Your task to perform on an android device: turn on data saver in the chrome app Image 0: 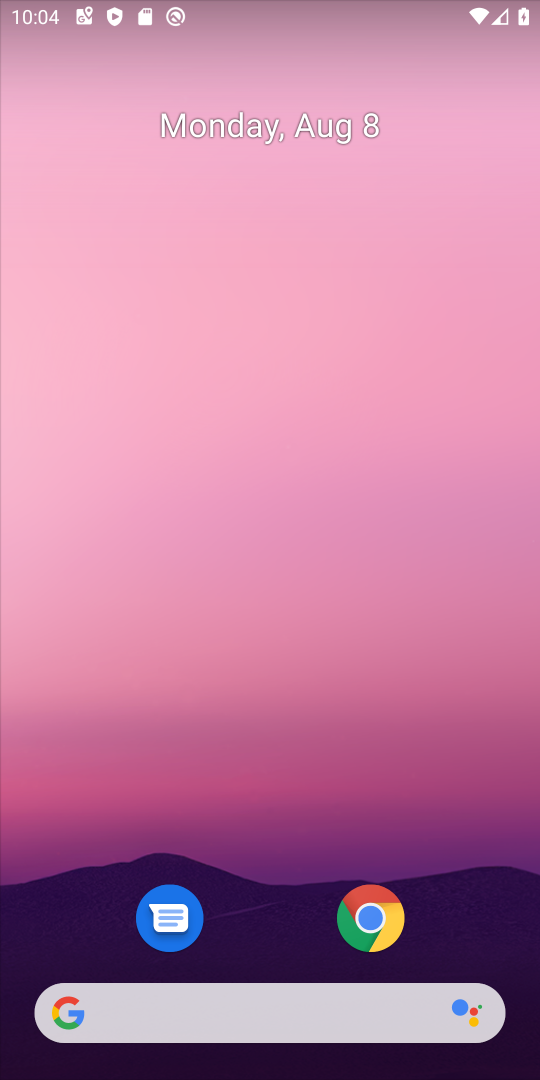
Step 0: click (349, 916)
Your task to perform on an android device: turn on data saver in the chrome app Image 1: 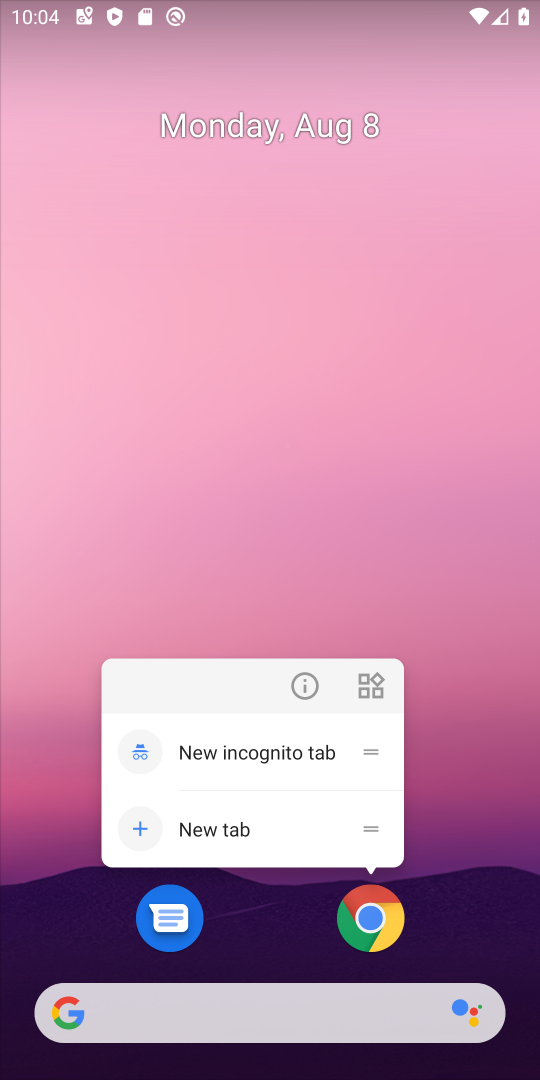
Step 1: click (384, 920)
Your task to perform on an android device: turn on data saver in the chrome app Image 2: 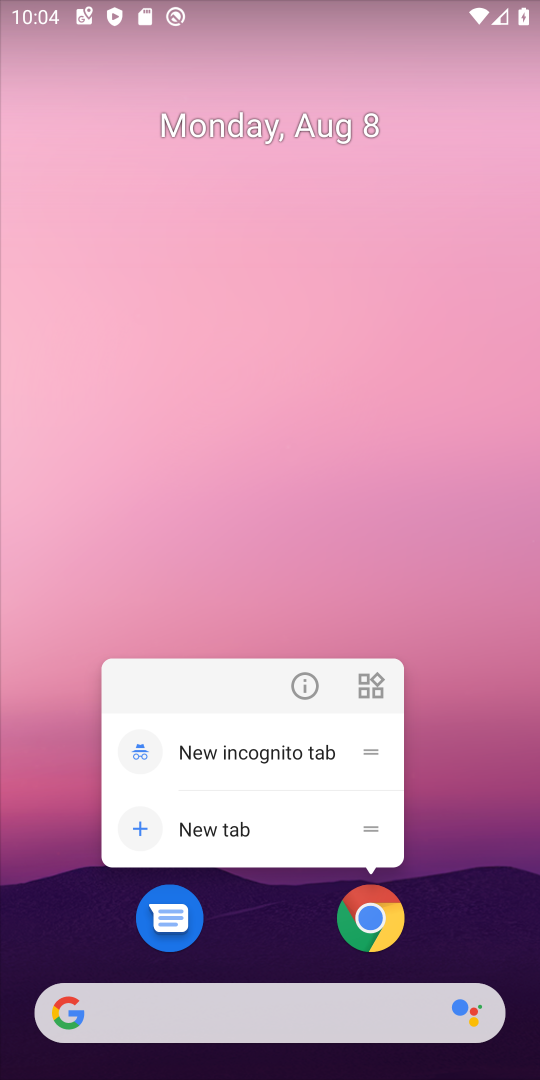
Step 2: click (379, 911)
Your task to perform on an android device: turn on data saver in the chrome app Image 3: 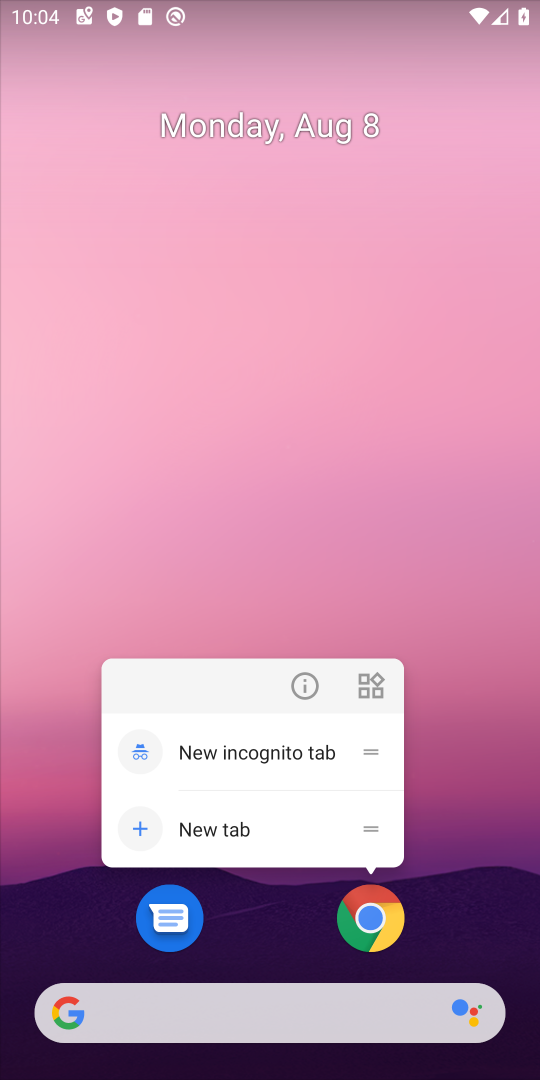
Step 3: click (369, 924)
Your task to perform on an android device: turn on data saver in the chrome app Image 4: 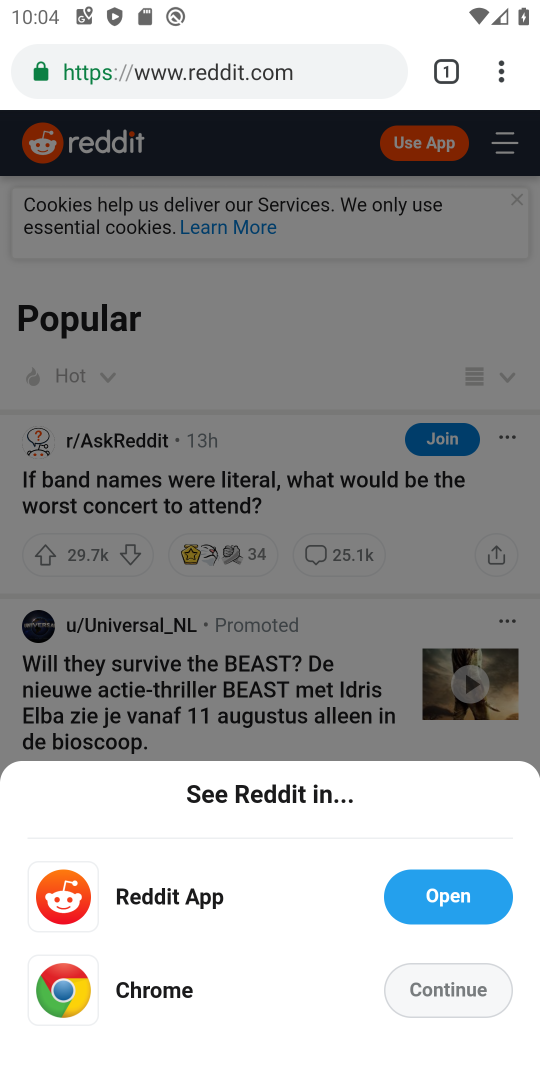
Step 4: click (438, 995)
Your task to perform on an android device: turn on data saver in the chrome app Image 5: 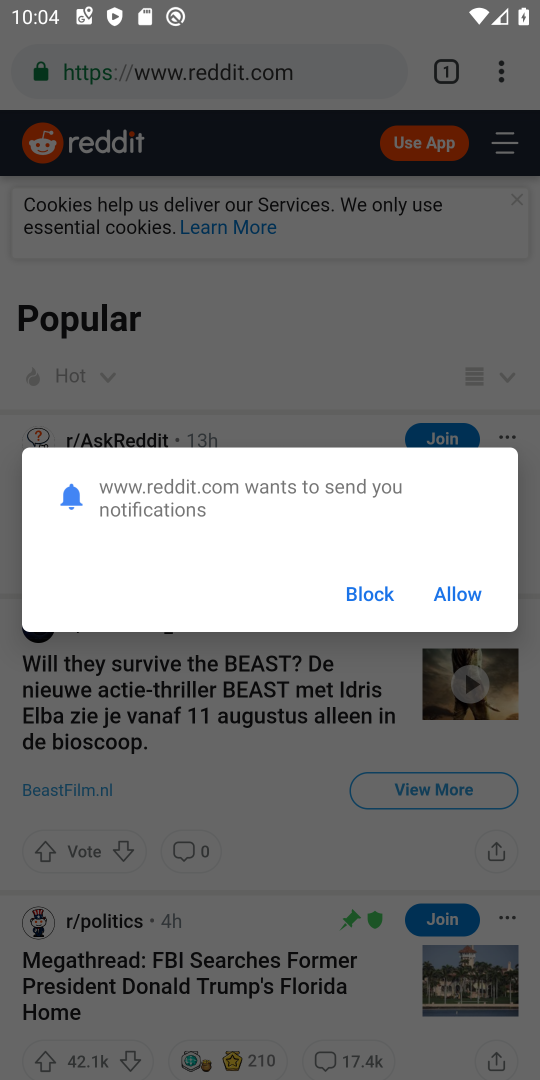
Step 5: click (448, 621)
Your task to perform on an android device: turn on data saver in the chrome app Image 6: 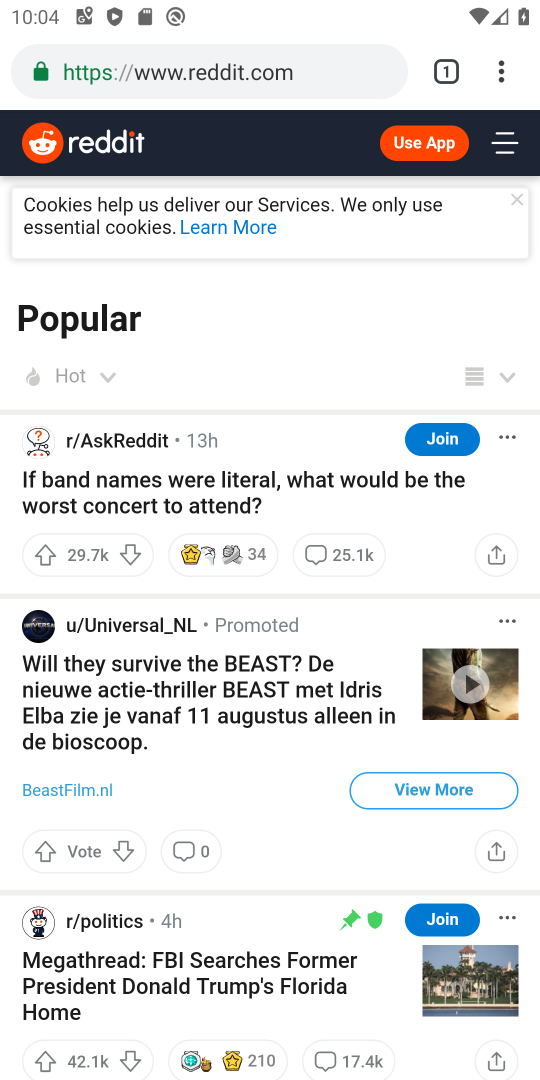
Step 6: click (504, 88)
Your task to perform on an android device: turn on data saver in the chrome app Image 7: 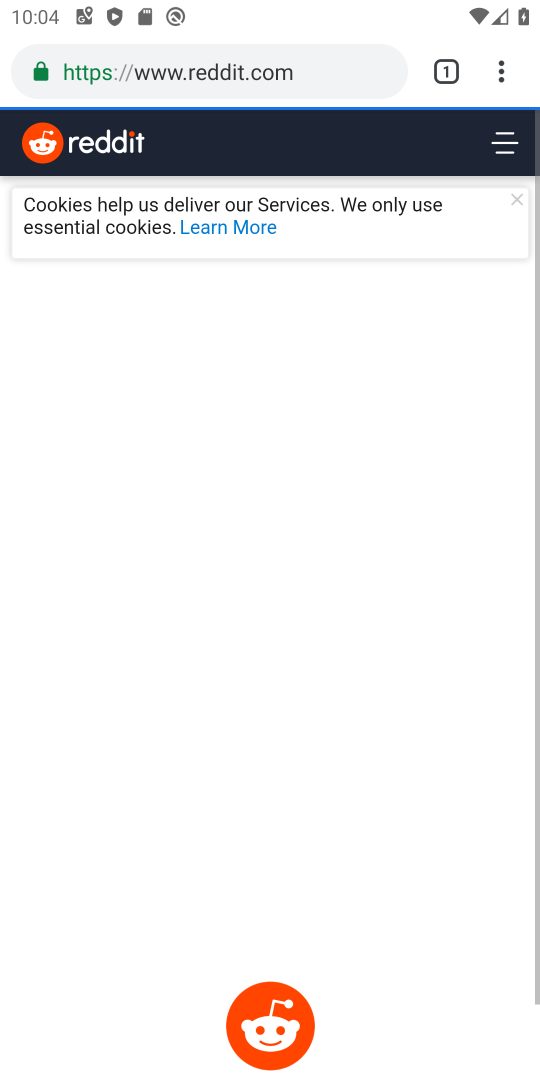
Step 7: click (504, 59)
Your task to perform on an android device: turn on data saver in the chrome app Image 8: 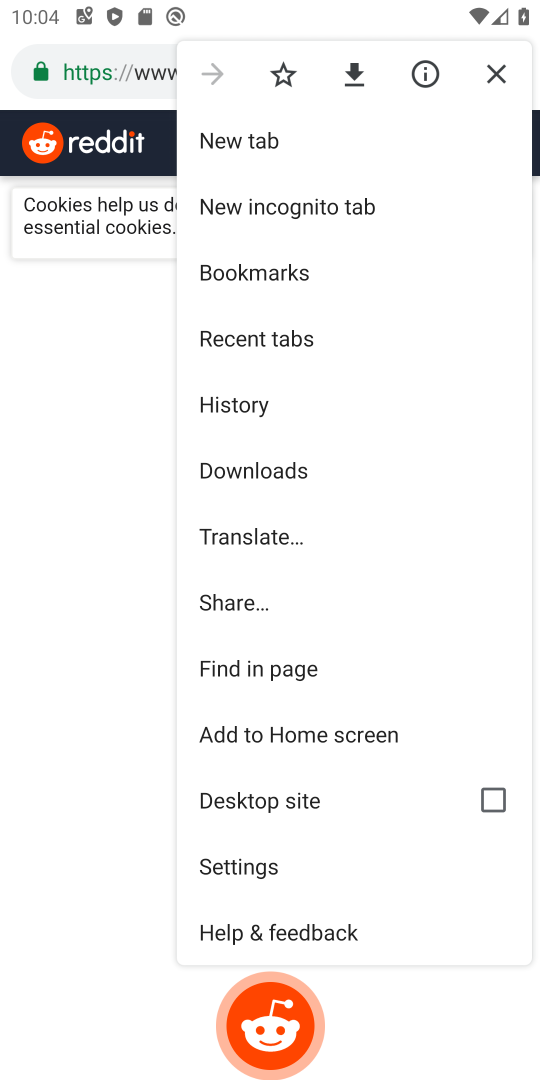
Step 8: click (290, 855)
Your task to perform on an android device: turn on data saver in the chrome app Image 9: 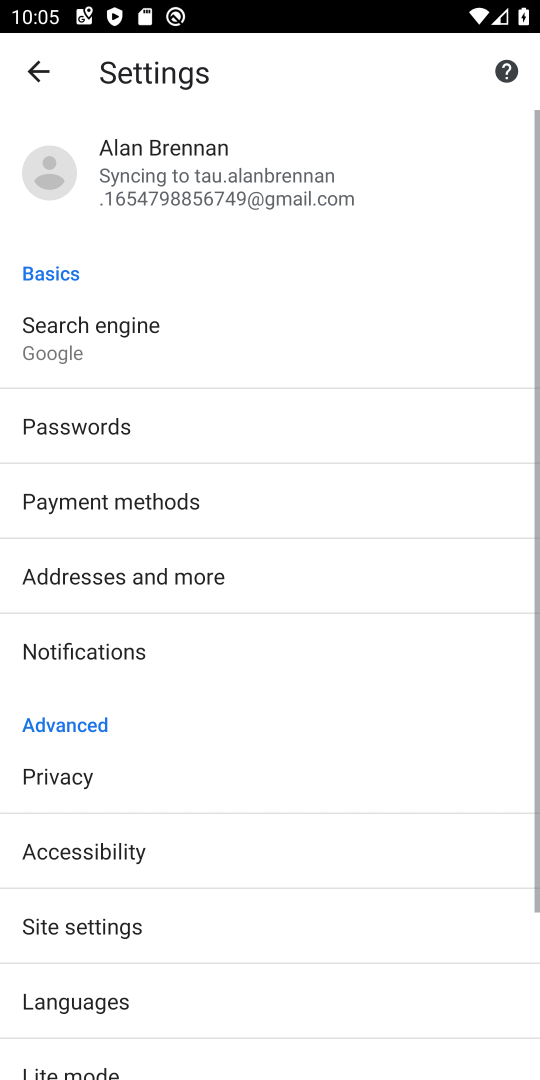
Step 9: drag from (244, 879) to (223, 222)
Your task to perform on an android device: turn on data saver in the chrome app Image 10: 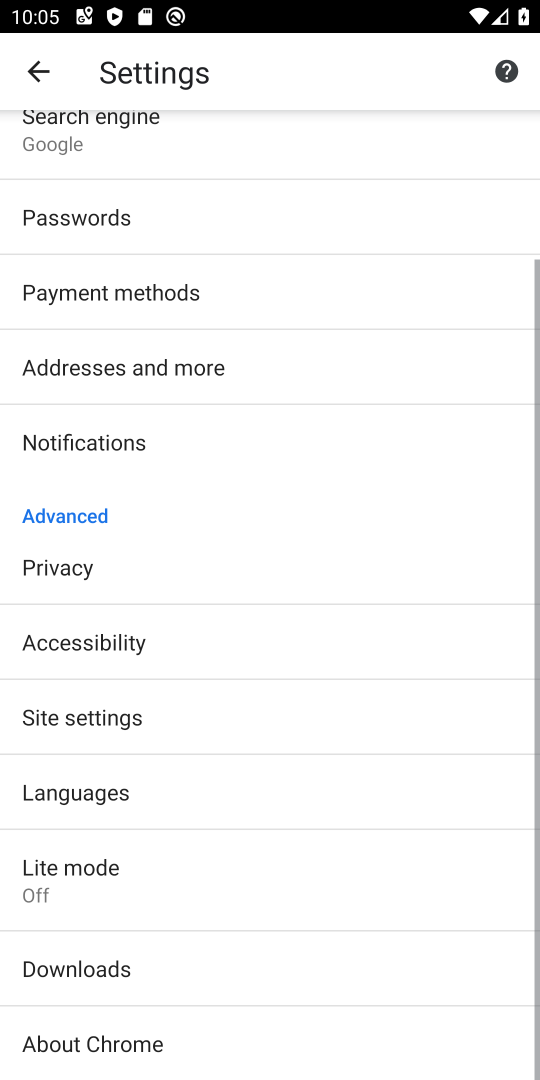
Step 10: click (90, 870)
Your task to perform on an android device: turn on data saver in the chrome app Image 11: 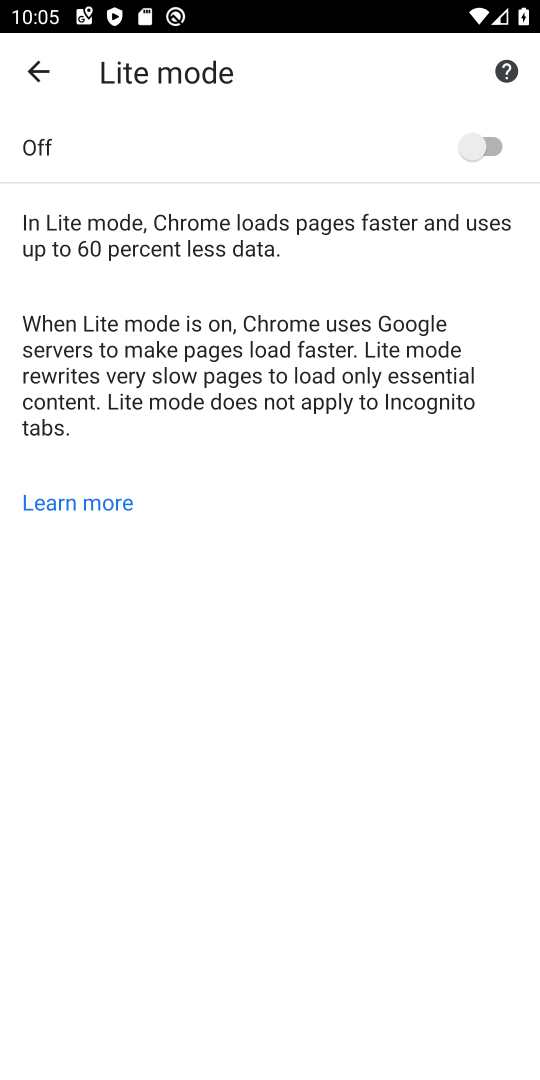
Step 11: click (484, 160)
Your task to perform on an android device: turn on data saver in the chrome app Image 12: 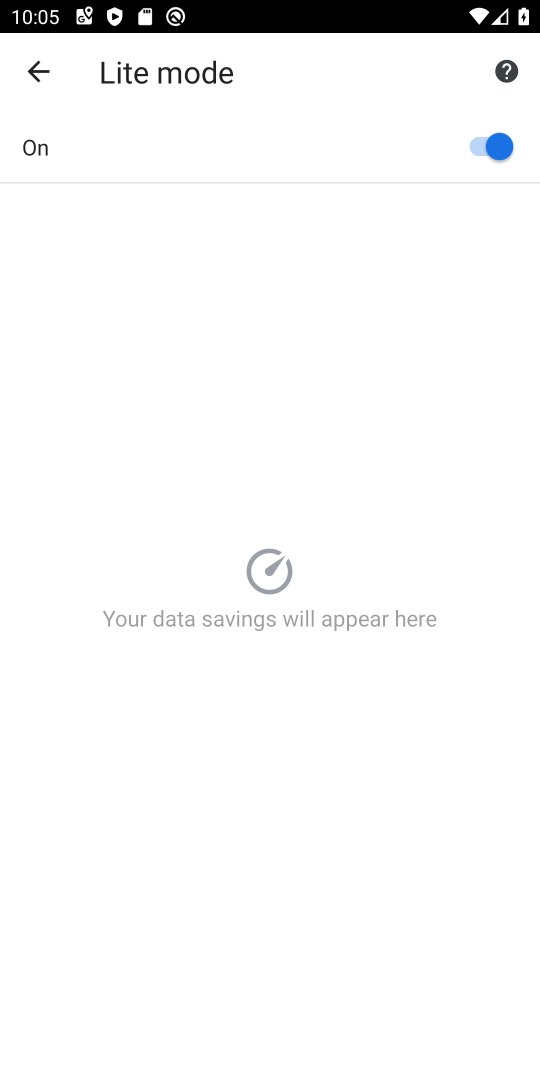
Step 12: task complete